Your task to perform on an android device: Do I have any events this weekend? Image 0: 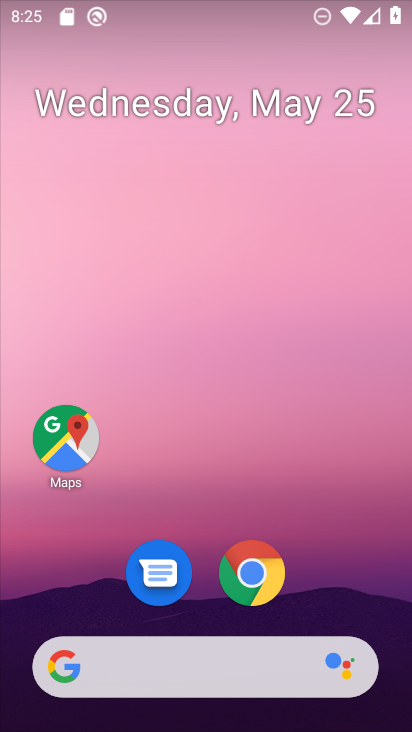
Step 0: drag from (395, 609) to (338, 169)
Your task to perform on an android device: Do I have any events this weekend? Image 1: 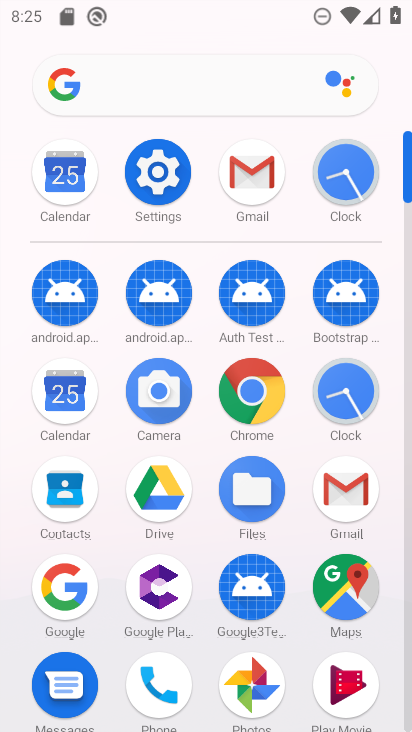
Step 1: click (59, 399)
Your task to perform on an android device: Do I have any events this weekend? Image 2: 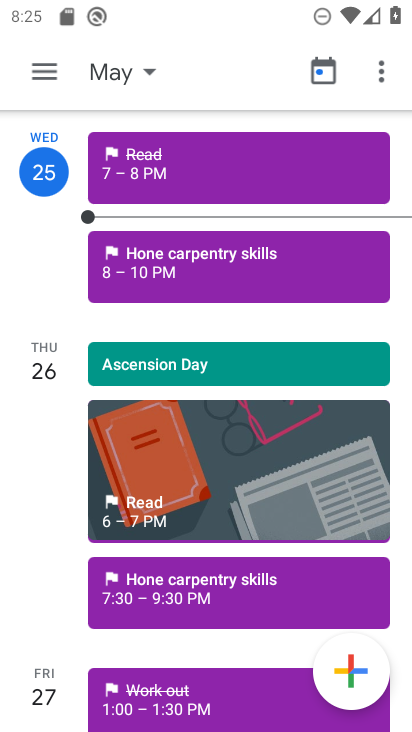
Step 2: click (139, 72)
Your task to perform on an android device: Do I have any events this weekend? Image 3: 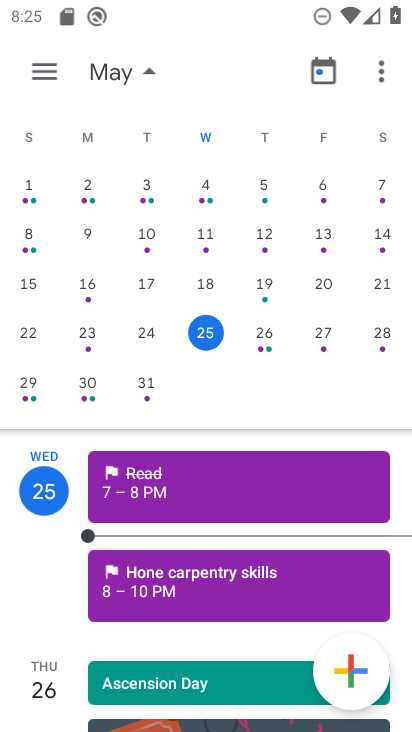
Step 3: click (259, 330)
Your task to perform on an android device: Do I have any events this weekend? Image 4: 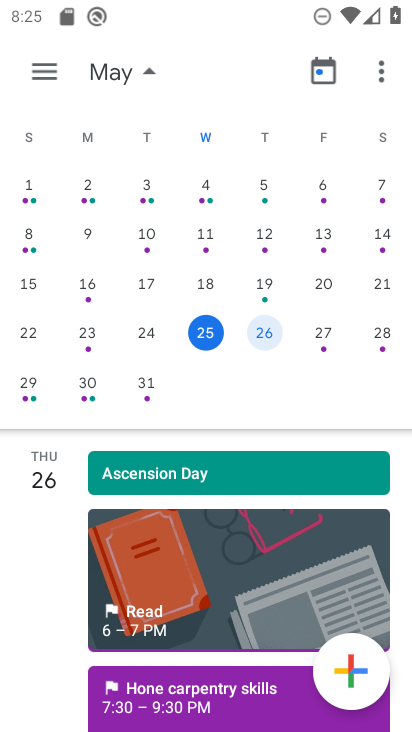
Step 4: click (46, 75)
Your task to perform on an android device: Do I have any events this weekend? Image 5: 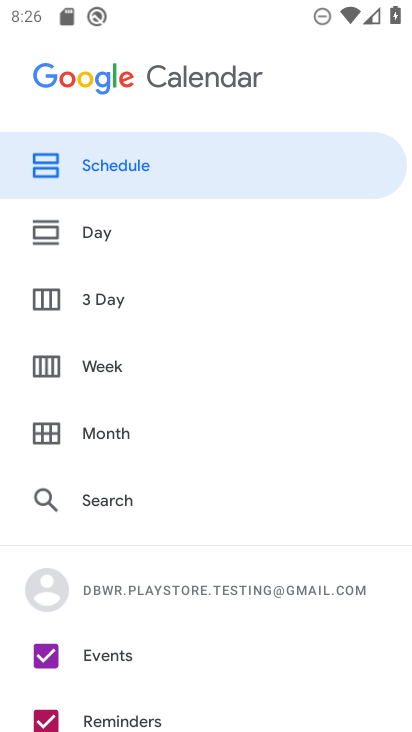
Step 5: click (55, 374)
Your task to perform on an android device: Do I have any events this weekend? Image 6: 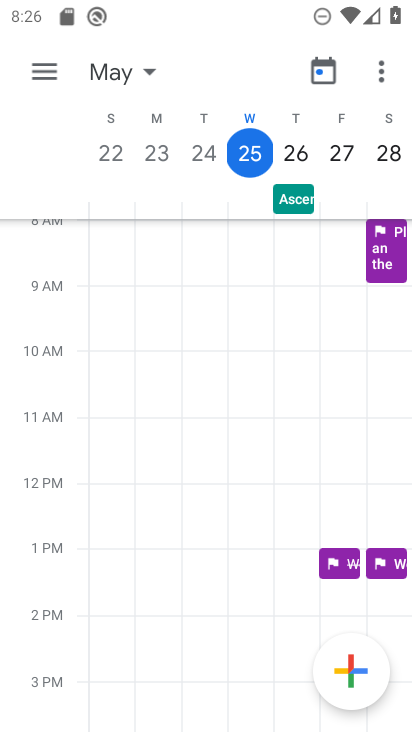
Step 6: click (44, 72)
Your task to perform on an android device: Do I have any events this weekend? Image 7: 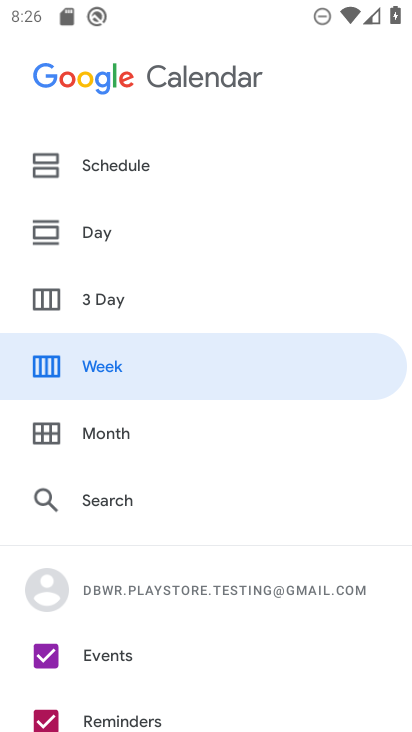
Step 7: drag from (146, 703) to (165, 369)
Your task to perform on an android device: Do I have any events this weekend? Image 8: 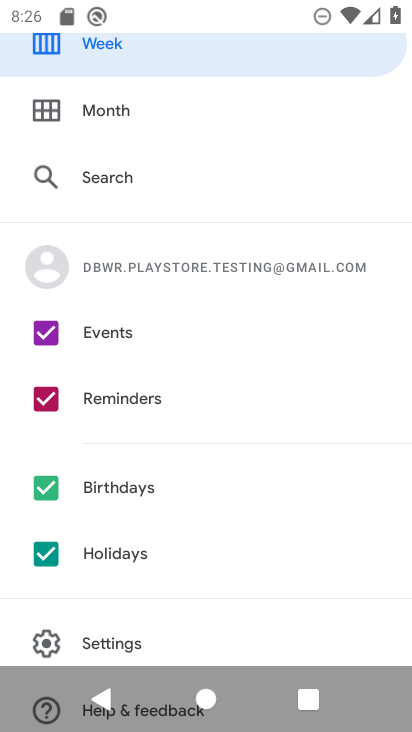
Step 8: click (43, 548)
Your task to perform on an android device: Do I have any events this weekend? Image 9: 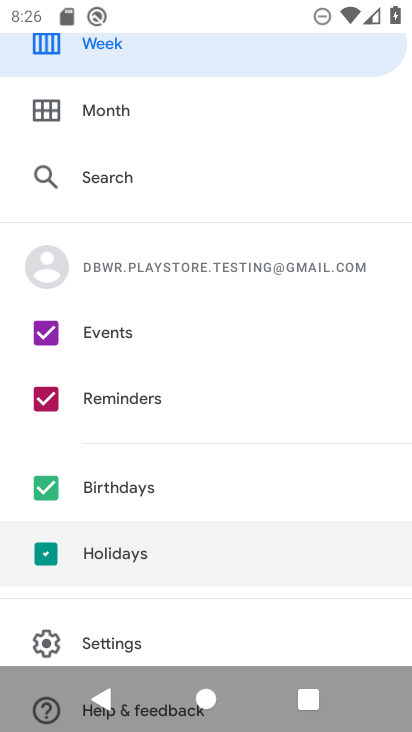
Step 9: click (43, 485)
Your task to perform on an android device: Do I have any events this weekend? Image 10: 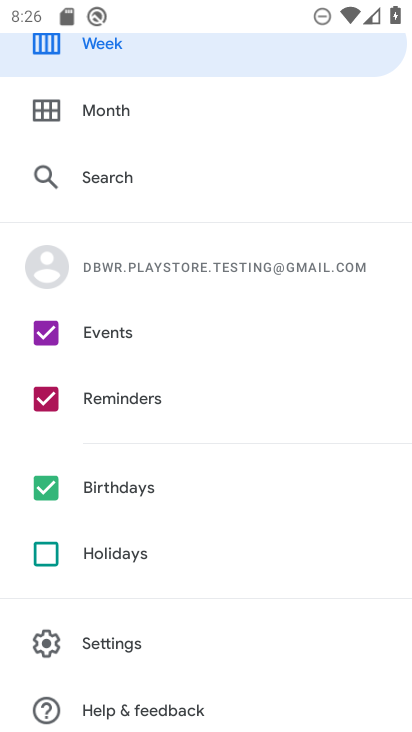
Step 10: click (46, 399)
Your task to perform on an android device: Do I have any events this weekend? Image 11: 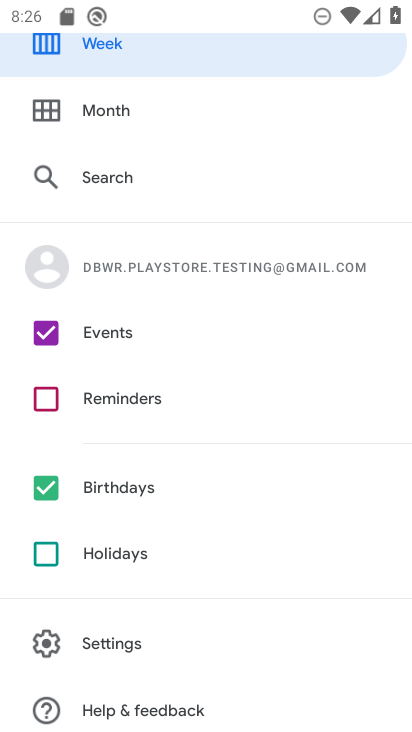
Step 11: click (45, 487)
Your task to perform on an android device: Do I have any events this weekend? Image 12: 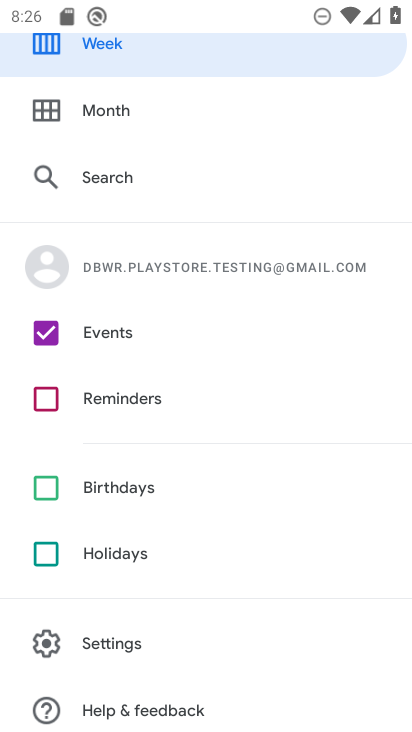
Step 12: drag from (206, 139) to (247, 545)
Your task to perform on an android device: Do I have any events this weekend? Image 13: 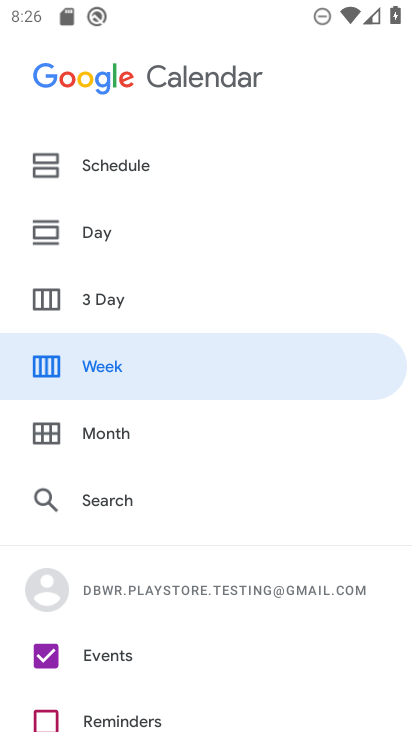
Step 13: click (95, 162)
Your task to perform on an android device: Do I have any events this weekend? Image 14: 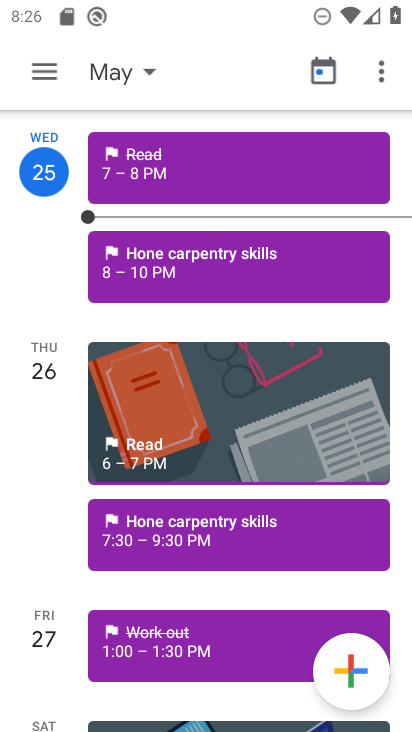
Step 14: task complete